Your task to perform on an android device: open chrome privacy settings Image 0: 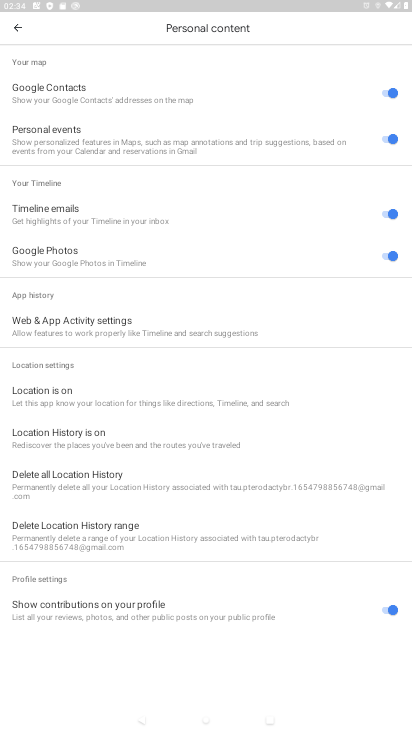
Step 0: press home button
Your task to perform on an android device: open chrome privacy settings Image 1: 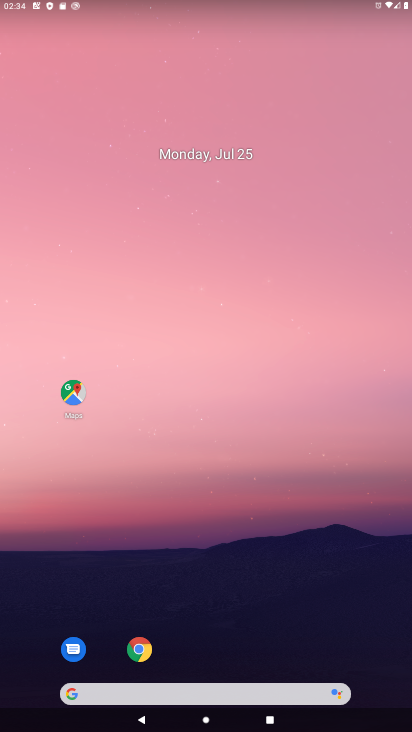
Step 1: click (138, 651)
Your task to perform on an android device: open chrome privacy settings Image 2: 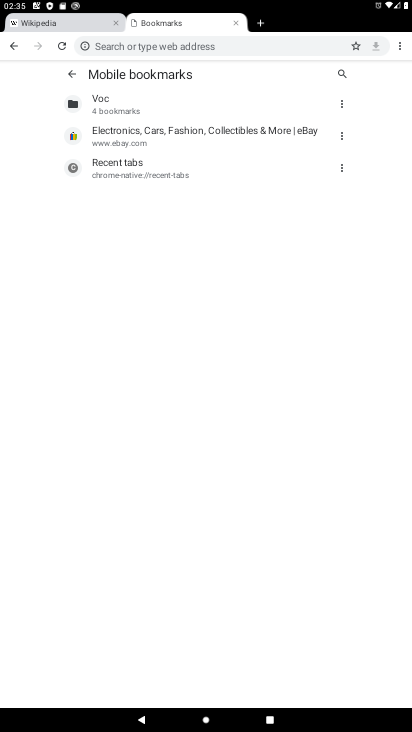
Step 2: click (399, 51)
Your task to perform on an android device: open chrome privacy settings Image 3: 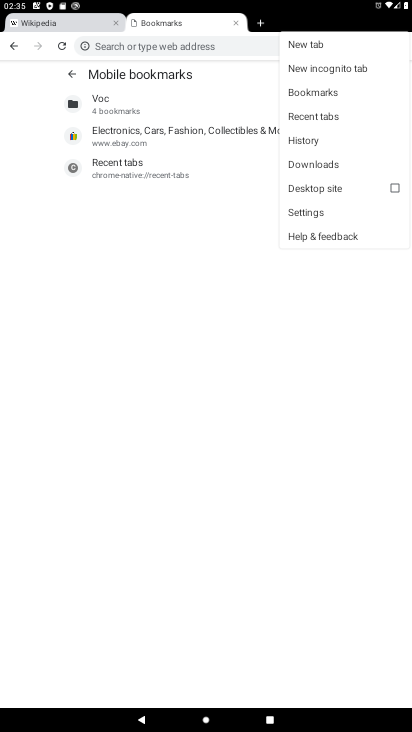
Step 3: click (307, 211)
Your task to perform on an android device: open chrome privacy settings Image 4: 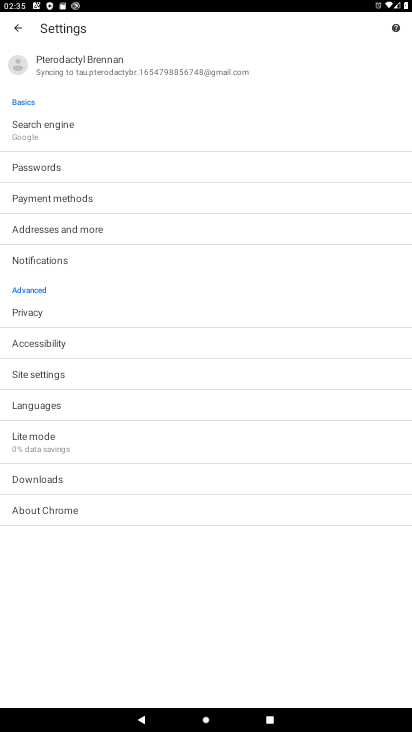
Step 4: click (29, 312)
Your task to perform on an android device: open chrome privacy settings Image 5: 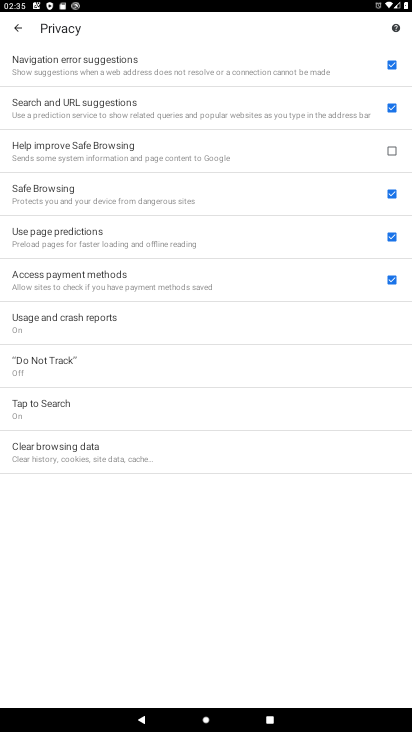
Step 5: task complete